Your task to perform on an android device: turn smart compose on in the gmail app Image 0: 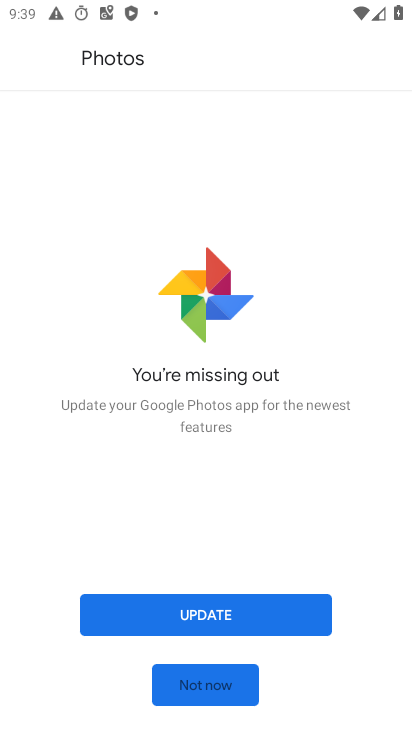
Step 0: press home button
Your task to perform on an android device: turn smart compose on in the gmail app Image 1: 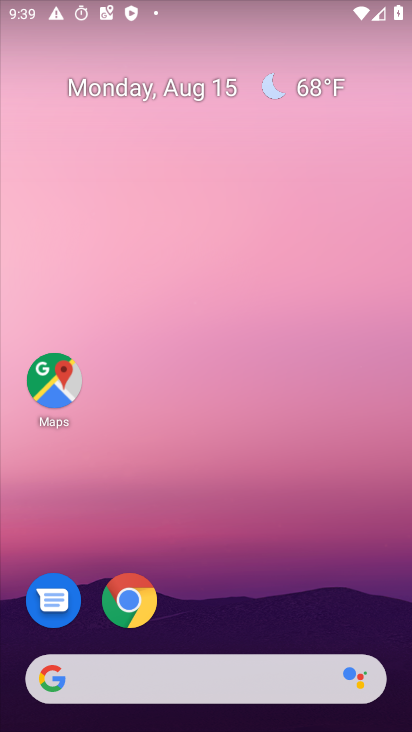
Step 1: drag from (193, 600) to (170, 50)
Your task to perform on an android device: turn smart compose on in the gmail app Image 2: 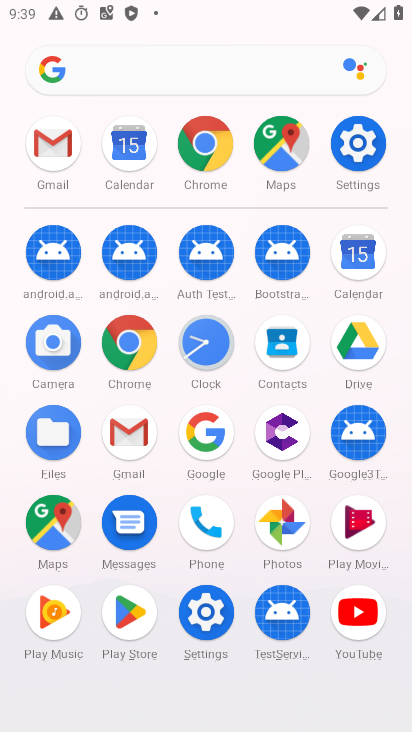
Step 2: click (49, 155)
Your task to perform on an android device: turn smart compose on in the gmail app Image 3: 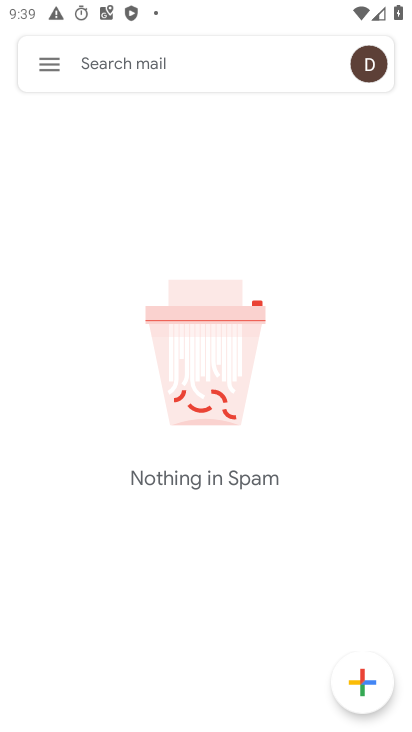
Step 3: click (44, 61)
Your task to perform on an android device: turn smart compose on in the gmail app Image 4: 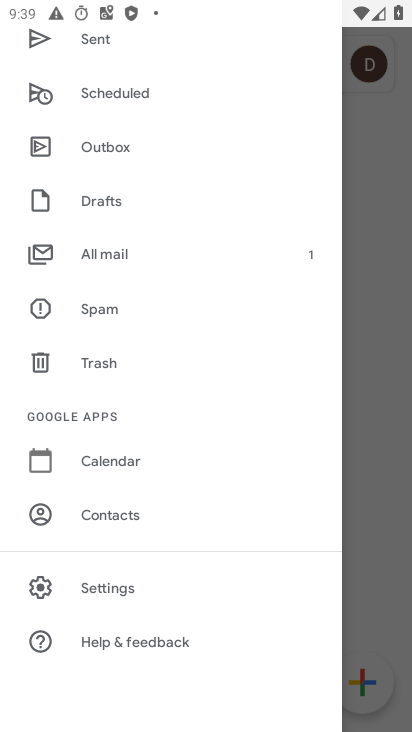
Step 4: click (107, 585)
Your task to perform on an android device: turn smart compose on in the gmail app Image 5: 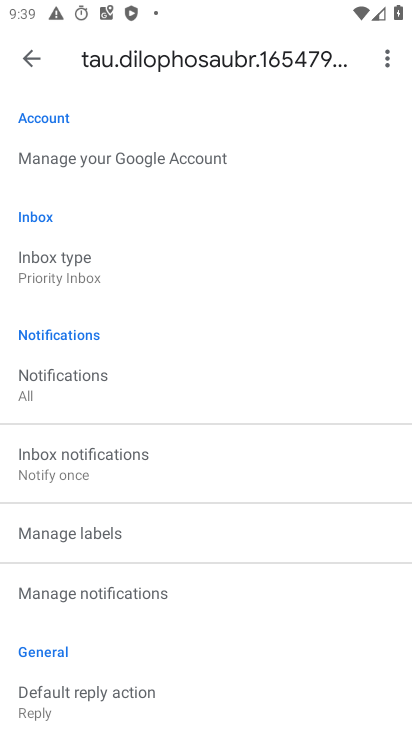
Step 5: task complete